Your task to perform on an android device: Open Maps and search for coffee Image 0: 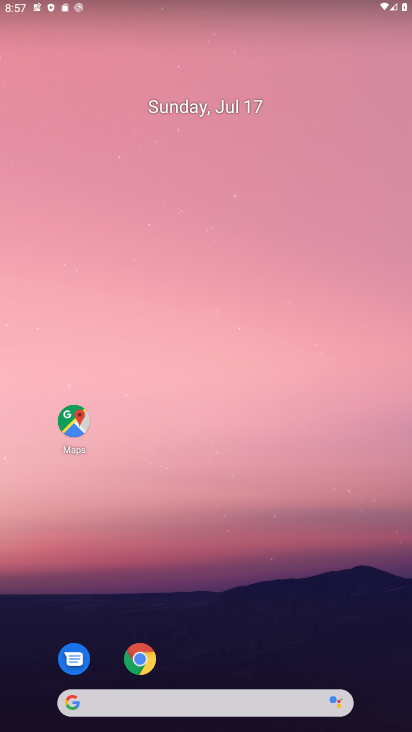
Step 0: click (74, 426)
Your task to perform on an android device: Open Maps and search for coffee Image 1: 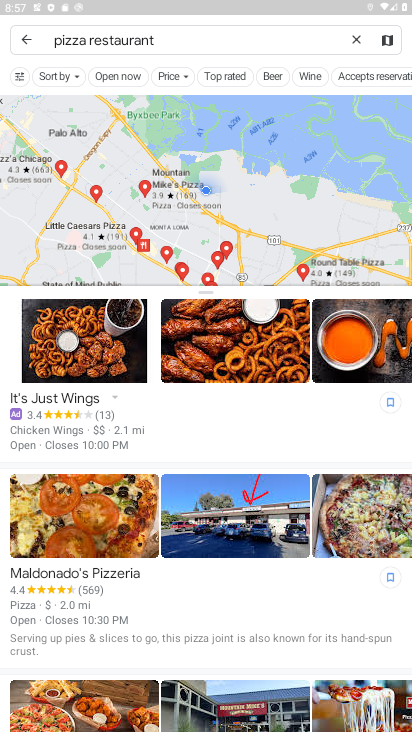
Step 1: click (348, 37)
Your task to perform on an android device: Open Maps and search for coffee Image 2: 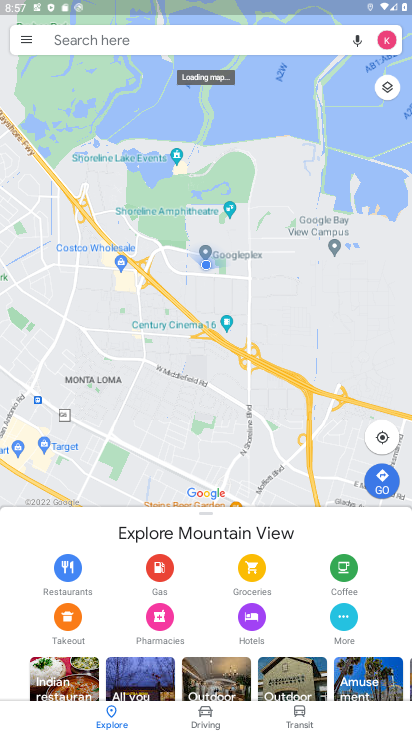
Step 2: click (104, 47)
Your task to perform on an android device: Open Maps and search for coffee Image 3: 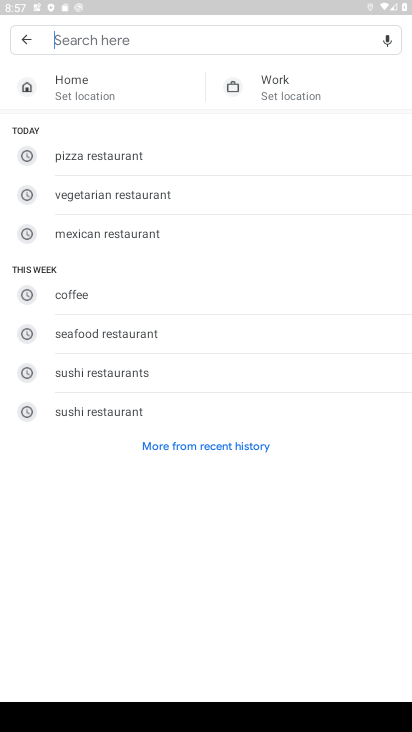
Step 3: click (101, 295)
Your task to perform on an android device: Open Maps and search for coffee Image 4: 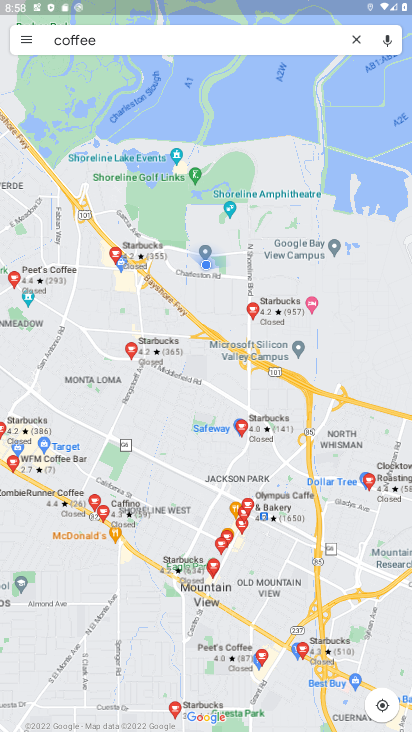
Step 4: task complete